Your task to perform on an android device: Search for sushi restaurants on Maps Image 0: 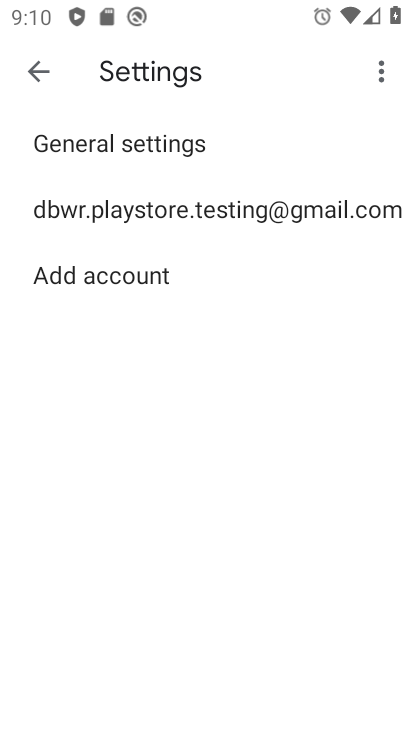
Step 0: press home button
Your task to perform on an android device: Search for sushi restaurants on Maps Image 1: 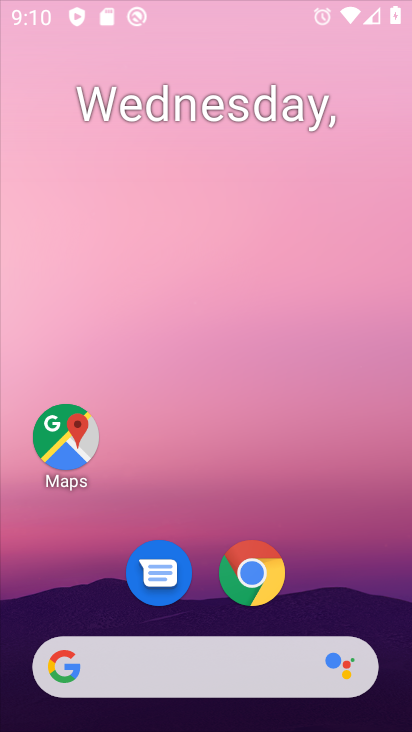
Step 1: drag from (229, 624) to (407, 167)
Your task to perform on an android device: Search for sushi restaurants on Maps Image 2: 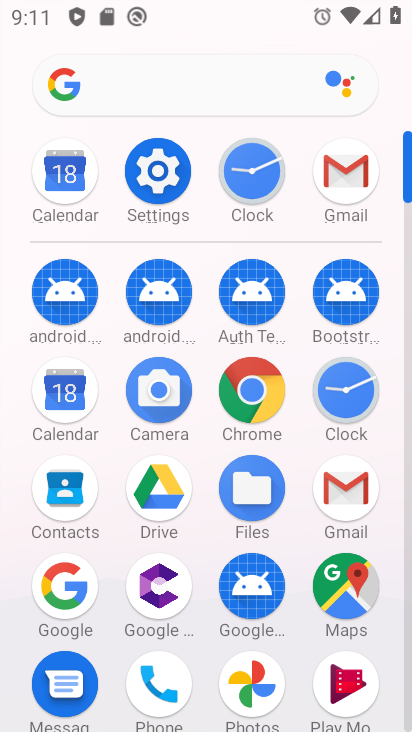
Step 2: click (357, 605)
Your task to perform on an android device: Search for sushi restaurants on Maps Image 3: 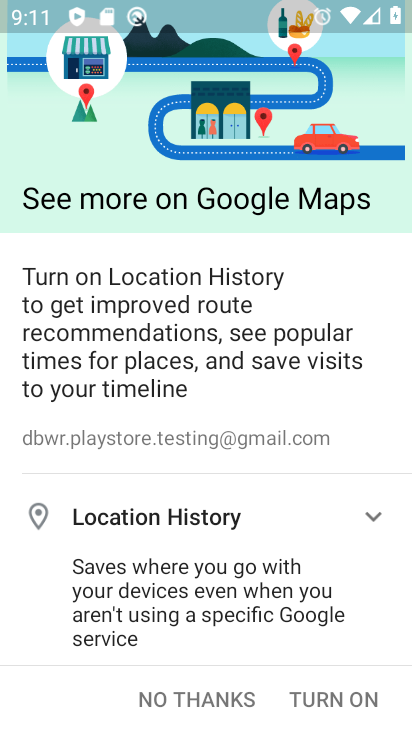
Step 3: click (359, 694)
Your task to perform on an android device: Search for sushi restaurants on Maps Image 4: 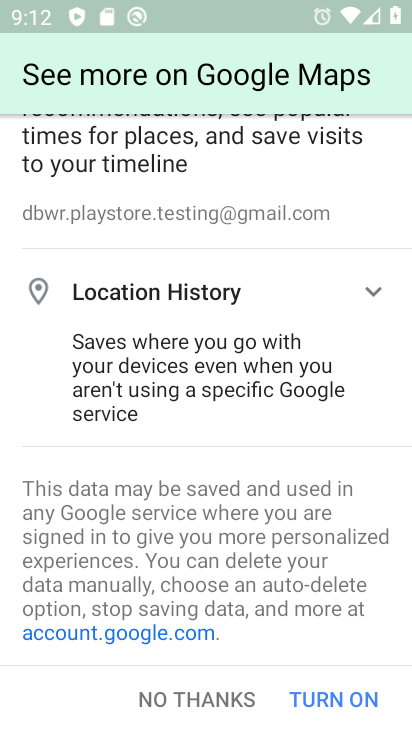
Step 4: click (350, 688)
Your task to perform on an android device: Search for sushi restaurants on Maps Image 5: 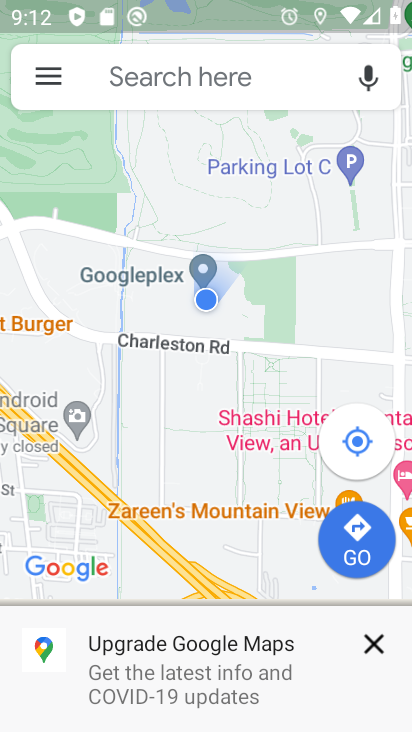
Step 5: click (144, 91)
Your task to perform on an android device: Search for sushi restaurants on Maps Image 6: 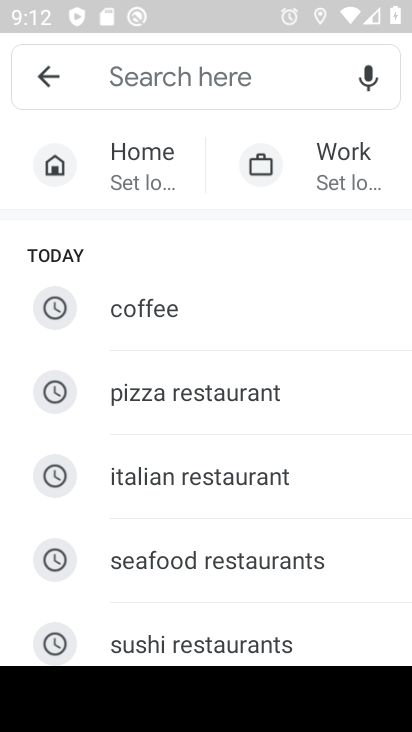
Step 6: click (254, 661)
Your task to perform on an android device: Search for sushi restaurants on Maps Image 7: 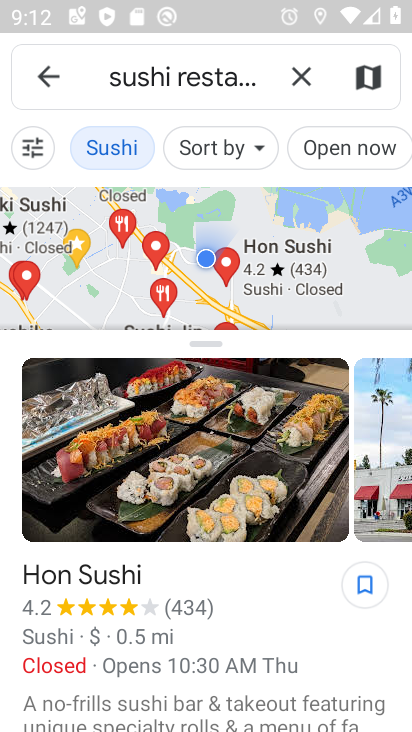
Step 7: task complete